Your task to perform on an android device: set default search engine in the chrome app Image 0: 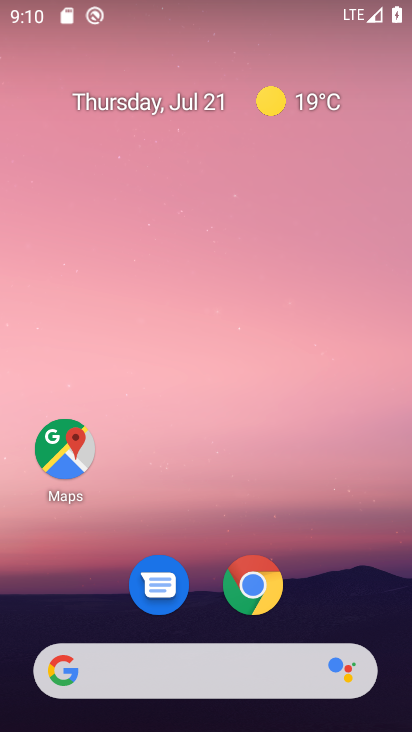
Step 0: click (258, 584)
Your task to perform on an android device: set default search engine in the chrome app Image 1: 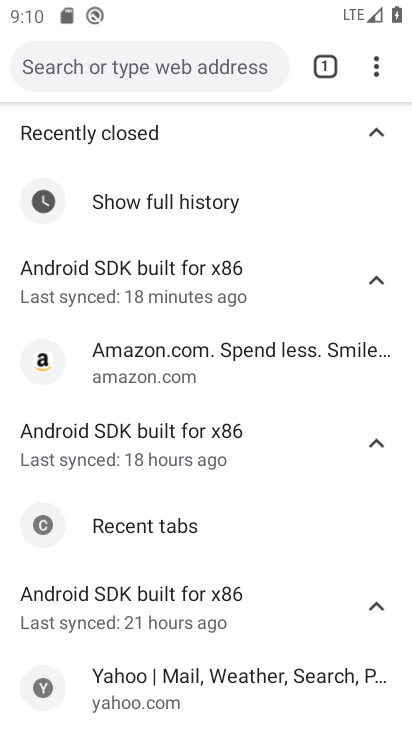
Step 1: click (374, 69)
Your task to perform on an android device: set default search engine in the chrome app Image 2: 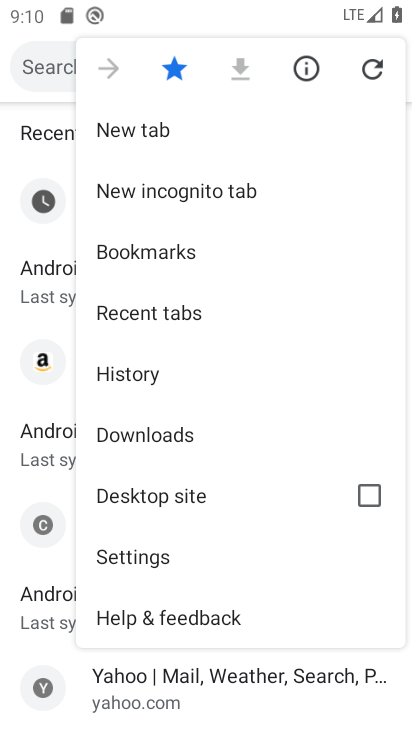
Step 2: click (164, 563)
Your task to perform on an android device: set default search engine in the chrome app Image 3: 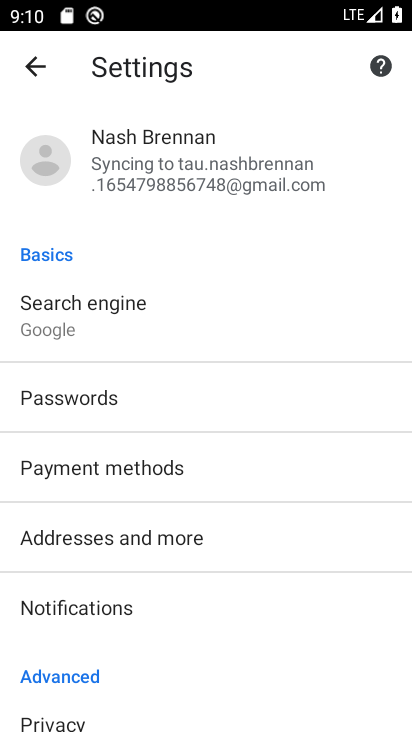
Step 3: click (78, 321)
Your task to perform on an android device: set default search engine in the chrome app Image 4: 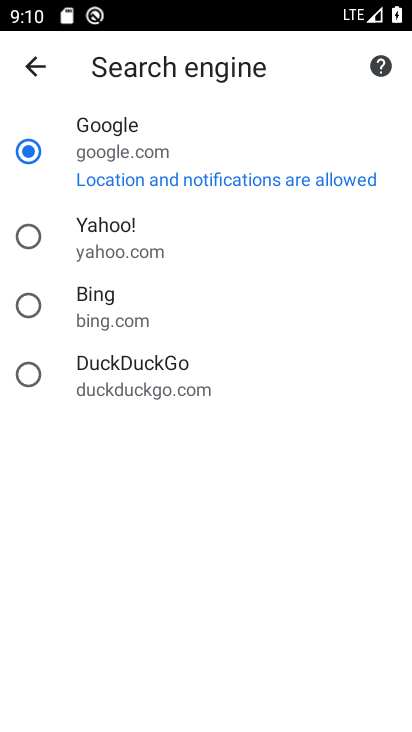
Step 4: task complete